Your task to perform on an android device: See recent photos Image 0: 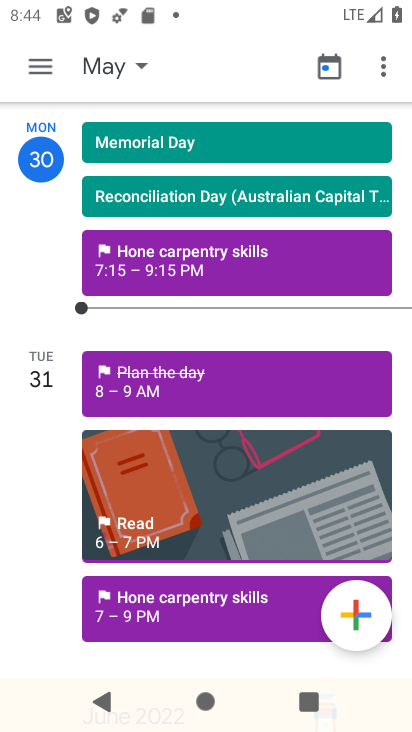
Step 0: press home button
Your task to perform on an android device: See recent photos Image 1: 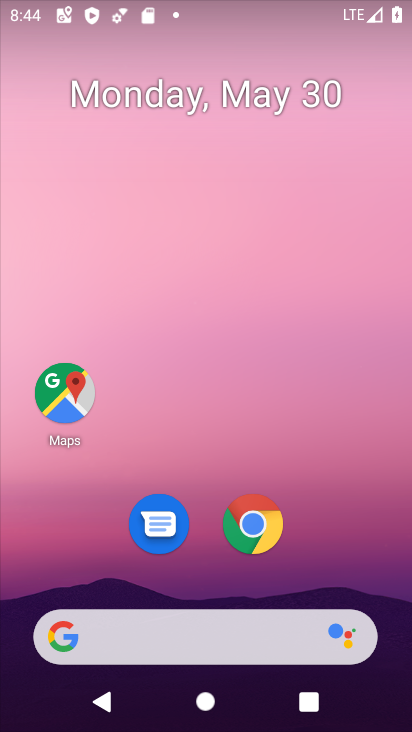
Step 1: drag from (209, 551) to (202, 93)
Your task to perform on an android device: See recent photos Image 2: 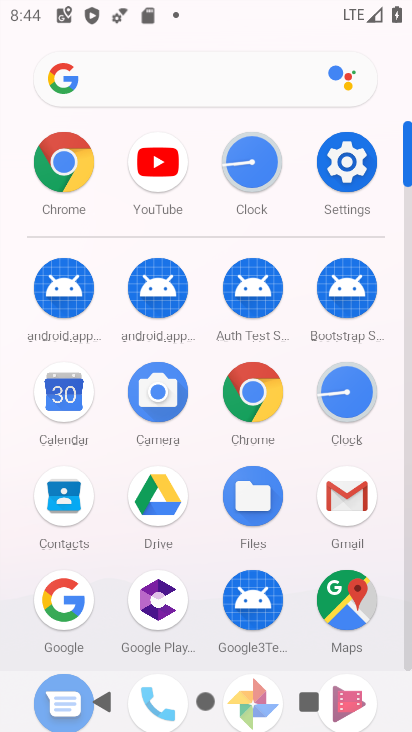
Step 2: drag from (206, 500) to (220, 281)
Your task to perform on an android device: See recent photos Image 3: 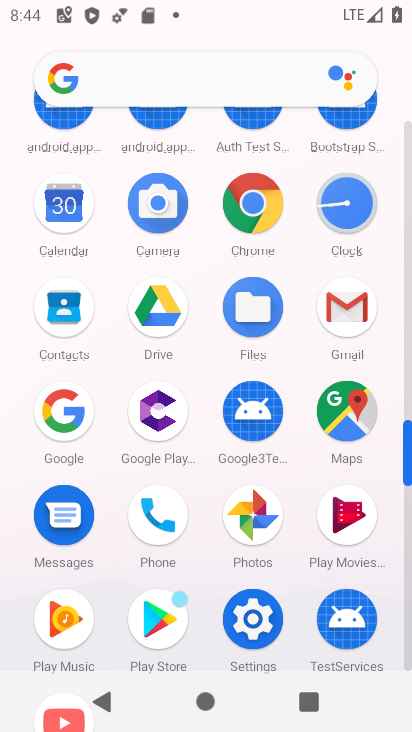
Step 3: click (248, 519)
Your task to perform on an android device: See recent photos Image 4: 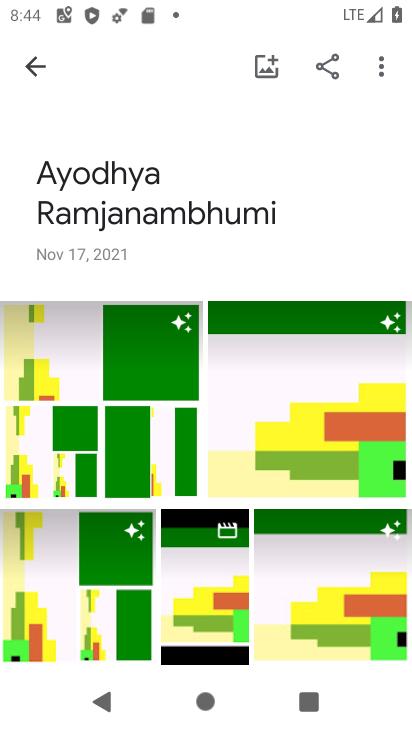
Step 4: click (32, 60)
Your task to perform on an android device: See recent photos Image 5: 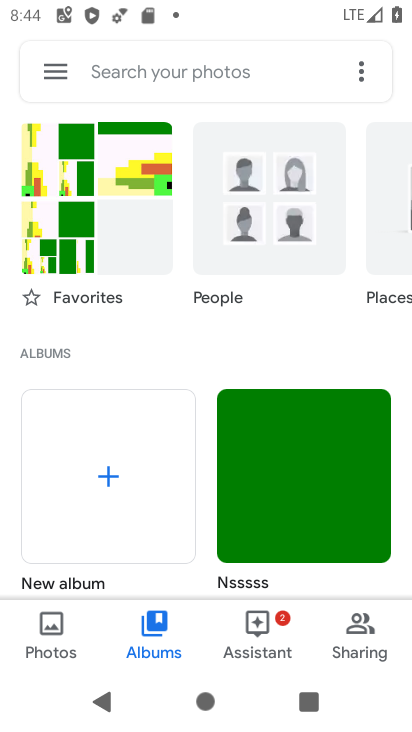
Step 5: click (58, 631)
Your task to perform on an android device: See recent photos Image 6: 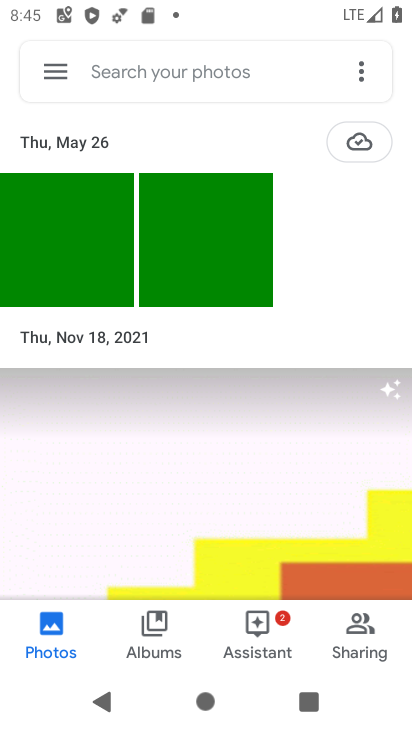
Step 6: task complete